Your task to perform on an android device: Open my contact list Image 0: 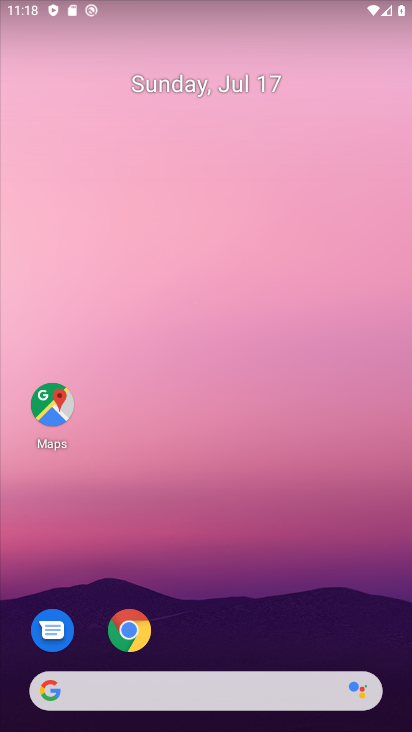
Step 0: drag from (226, 637) to (410, 150)
Your task to perform on an android device: Open my contact list Image 1: 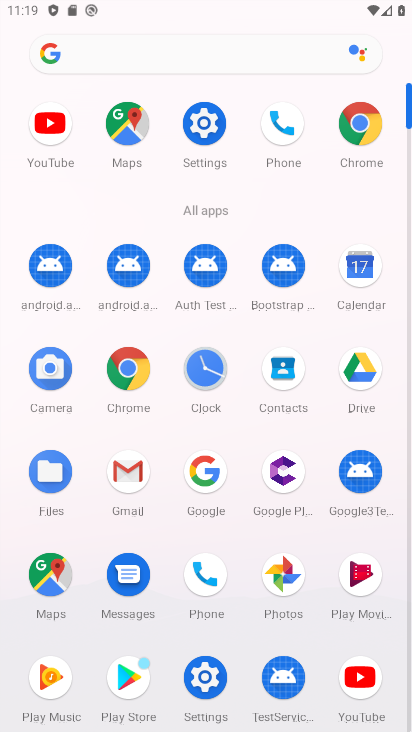
Step 1: click (278, 379)
Your task to perform on an android device: Open my contact list Image 2: 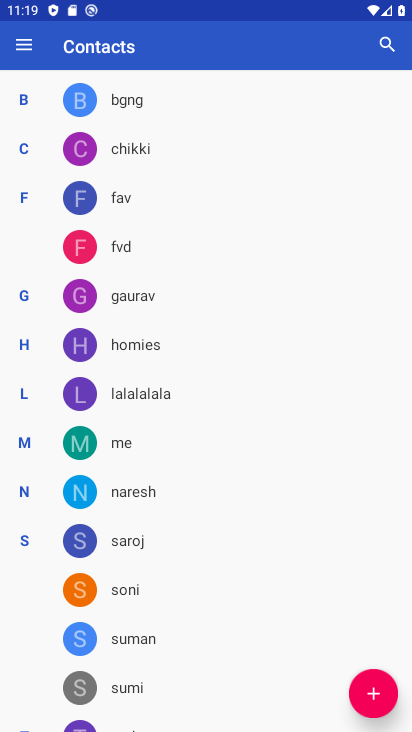
Step 2: task complete